Your task to perform on an android device: Is it going to rain tomorrow? Image 0: 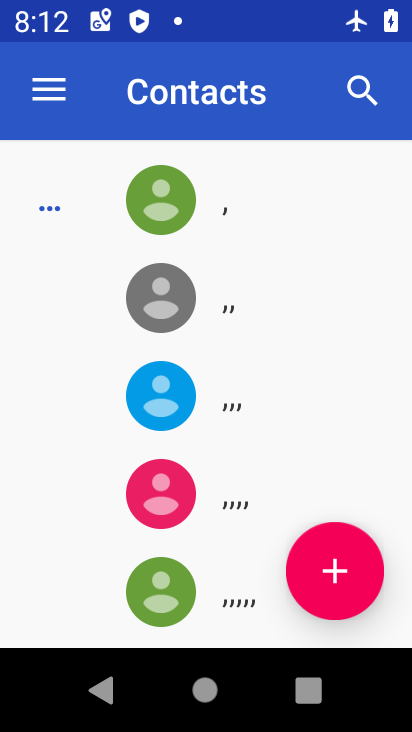
Step 0: press home button
Your task to perform on an android device: Is it going to rain tomorrow? Image 1: 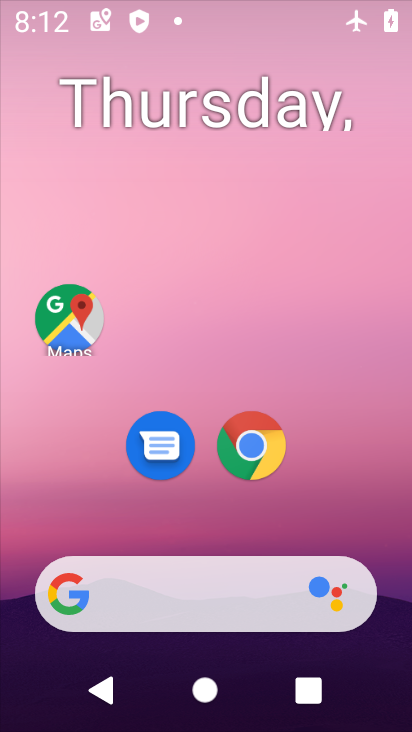
Step 1: drag from (385, 639) to (298, 15)
Your task to perform on an android device: Is it going to rain tomorrow? Image 2: 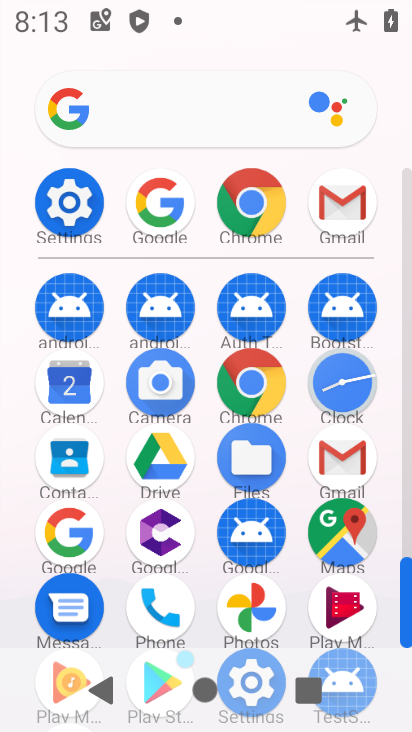
Step 2: click (74, 544)
Your task to perform on an android device: Is it going to rain tomorrow? Image 3: 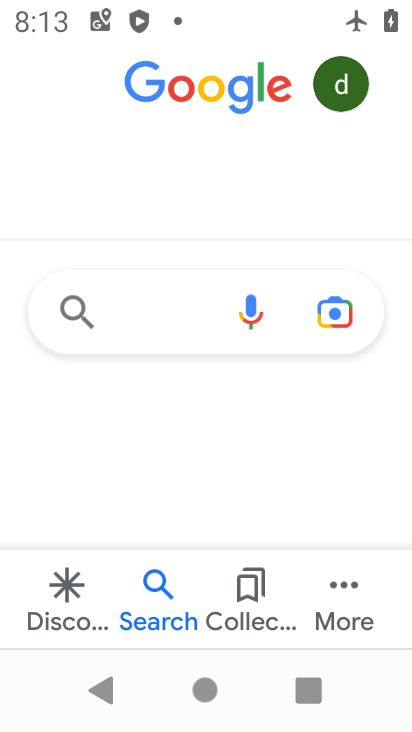
Step 3: click (141, 316)
Your task to perform on an android device: Is it going to rain tomorrow? Image 4: 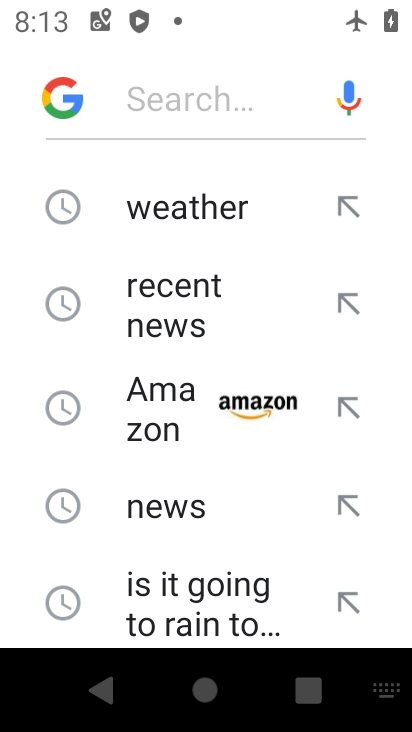
Step 4: drag from (166, 601) to (157, 143)
Your task to perform on an android device: Is it going to rain tomorrow? Image 5: 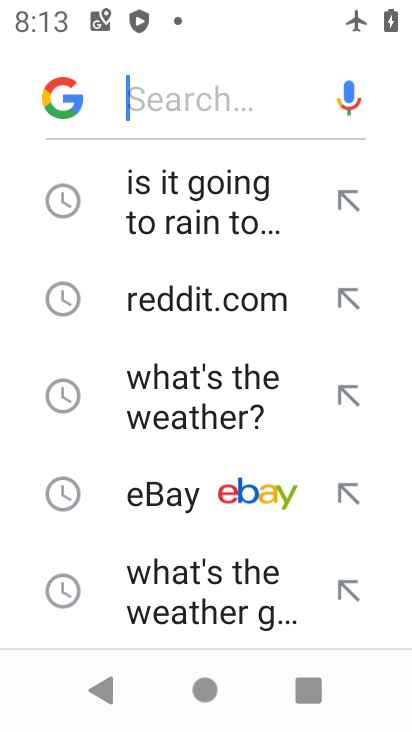
Step 5: drag from (163, 549) to (194, 177)
Your task to perform on an android device: Is it going to rain tomorrow? Image 6: 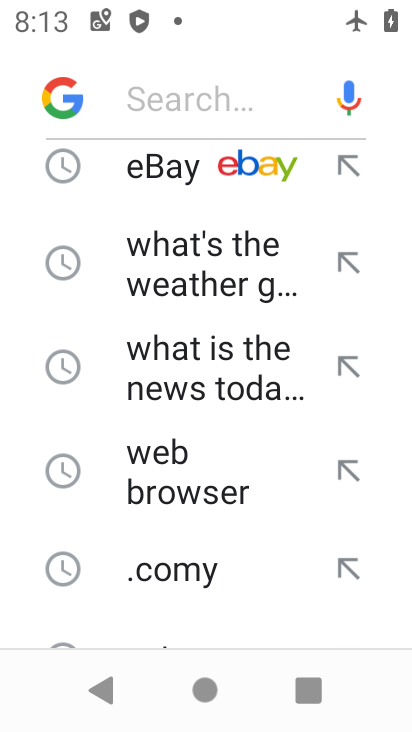
Step 6: drag from (126, 482) to (148, 173)
Your task to perform on an android device: Is it going to rain tomorrow? Image 7: 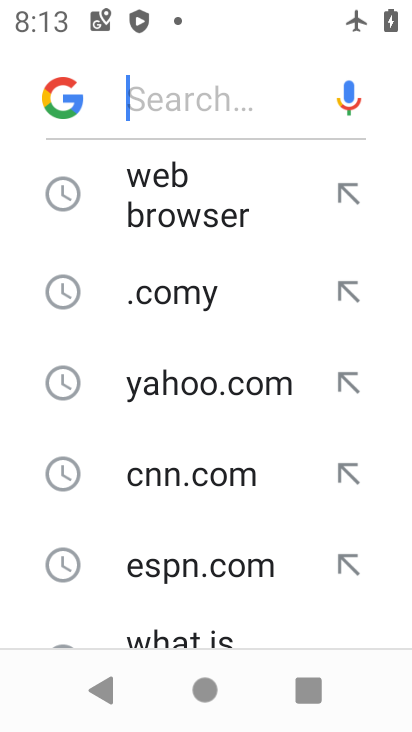
Step 7: drag from (152, 522) to (177, 144)
Your task to perform on an android device: Is it going to rain tomorrow? Image 8: 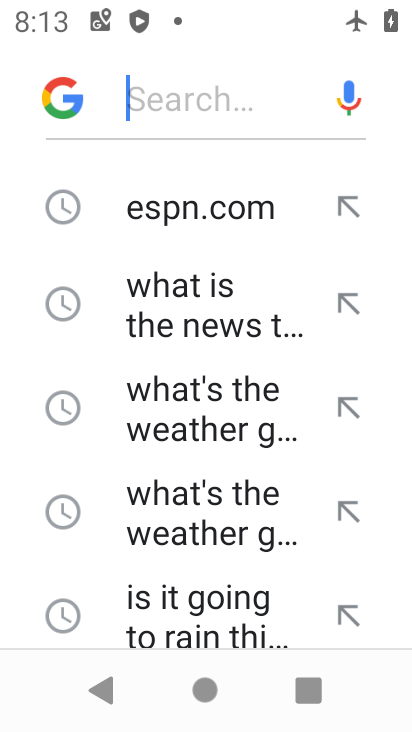
Step 8: drag from (72, 554) to (169, 254)
Your task to perform on an android device: Is it going to rain tomorrow? Image 9: 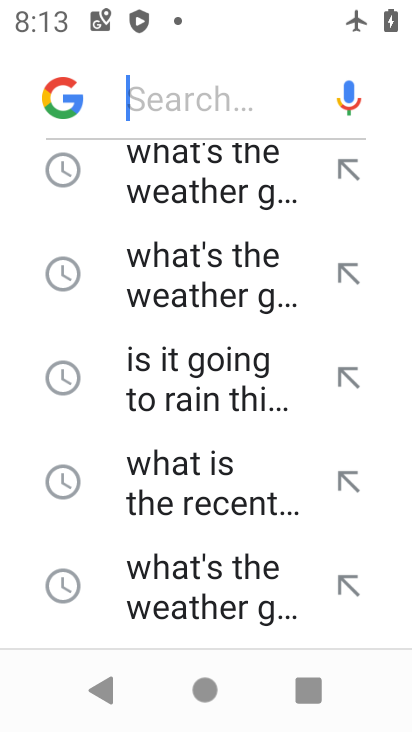
Step 9: click (171, 372)
Your task to perform on an android device: Is it going to rain tomorrow? Image 10: 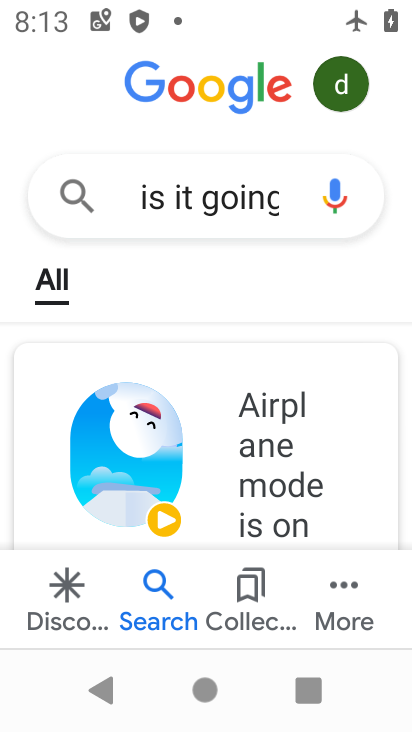
Step 10: task complete